Your task to perform on an android device: When is my next appointment? Image 0: 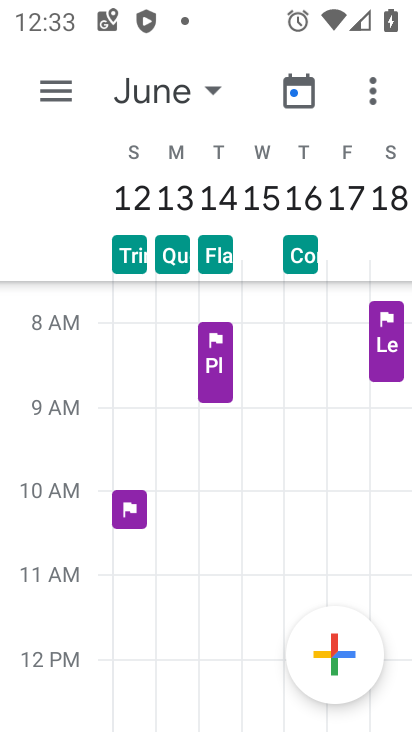
Step 0: press home button
Your task to perform on an android device: When is my next appointment? Image 1: 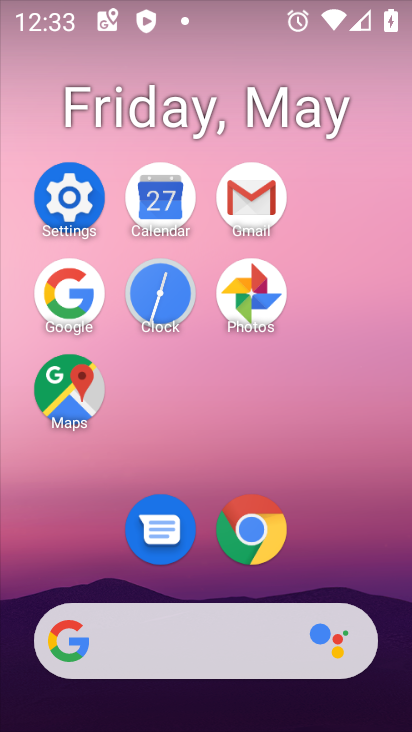
Step 1: click (182, 193)
Your task to perform on an android device: When is my next appointment? Image 2: 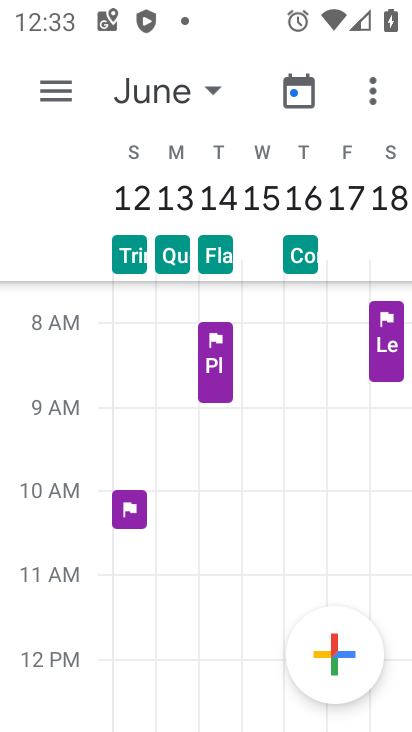
Step 2: click (184, 97)
Your task to perform on an android device: When is my next appointment? Image 3: 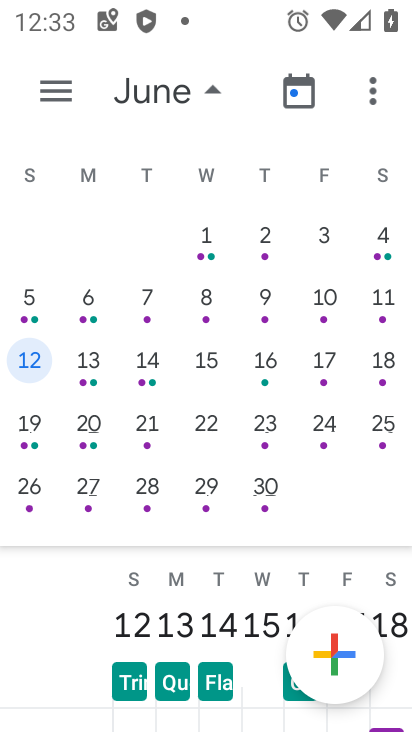
Step 3: drag from (26, 406) to (379, 394)
Your task to perform on an android device: When is my next appointment? Image 4: 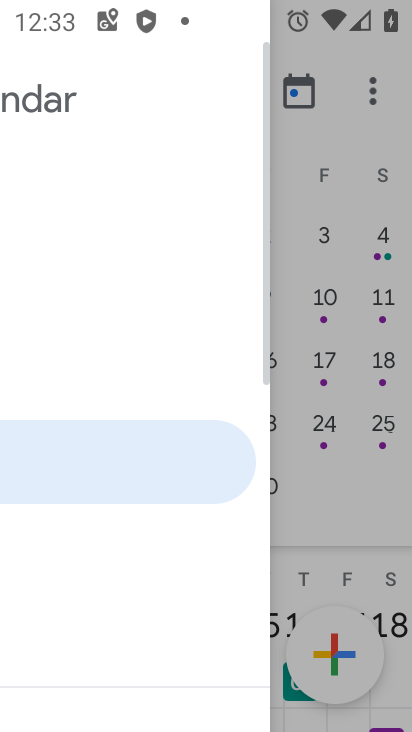
Step 4: click (368, 493)
Your task to perform on an android device: When is my next appointment? Image 5: 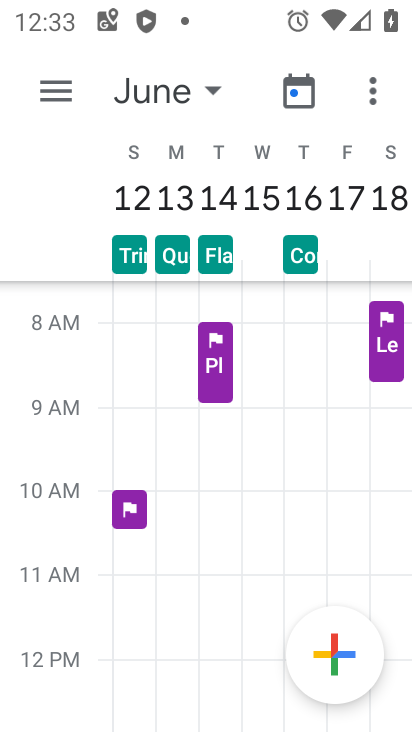
Step 5: drag from (69, 391) to (367, 374)
Your task to perform on an android device: When is my next appointment? Image 6: 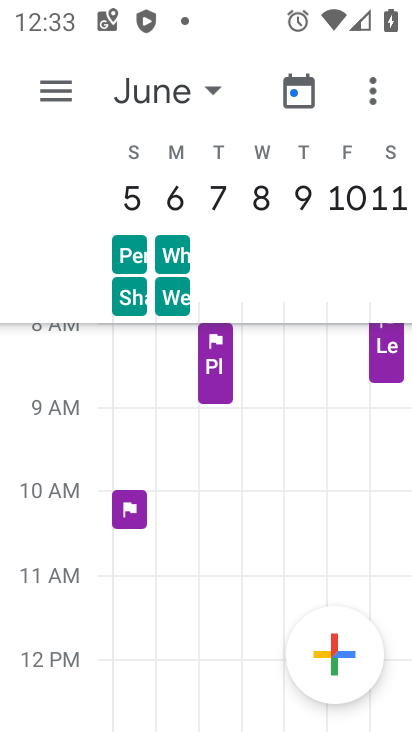
Step 6: drag from (138, 199) to (387, 171)
Your task to perform on an android device: When is my next appointment? Image 7: 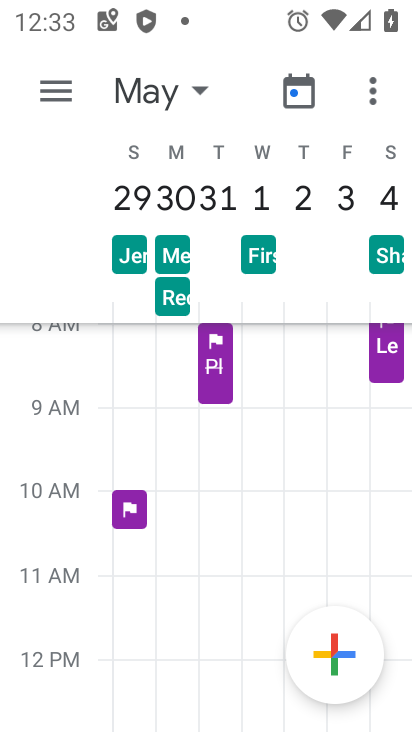
Step 7: click (141, 203)
Your task to perform on an android device: When is my next appointment? Image 8: 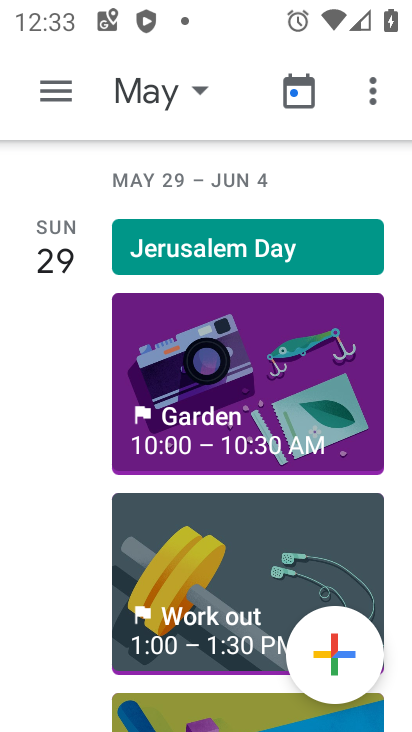
Step 8: task complete